Your task to perform on an android device: set default search engine in the chrome app Image 0: 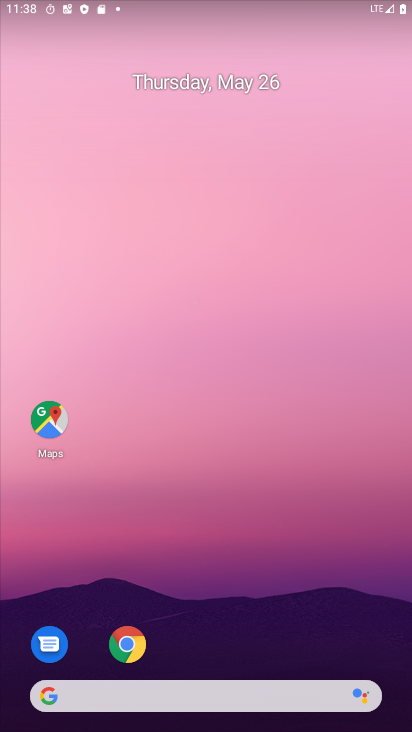
Step 0: click (132, 647)
Your task to perform on an android device: set default search engine in the chrome app Image 1: 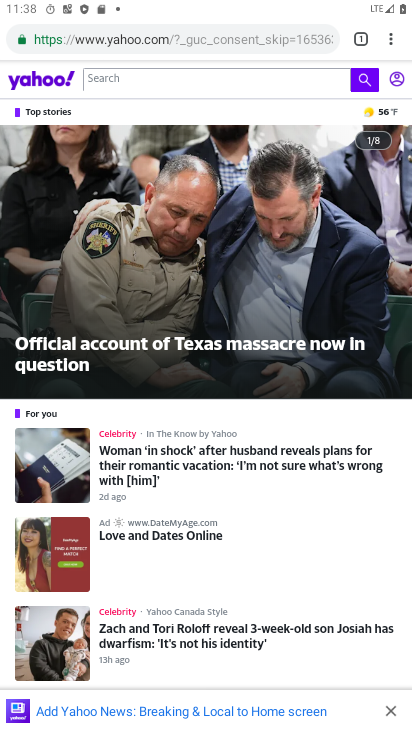
Step 1: click (389, 38)
Your task to perform on an android device: set default search engine in the chrome app Image 2: 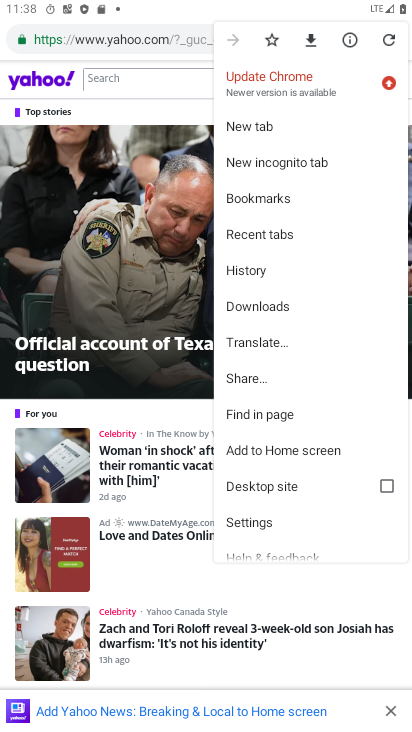
Step 2: click (271, 522)
Your task to perform on an android device: set default search engine in the chrome app Image 3: 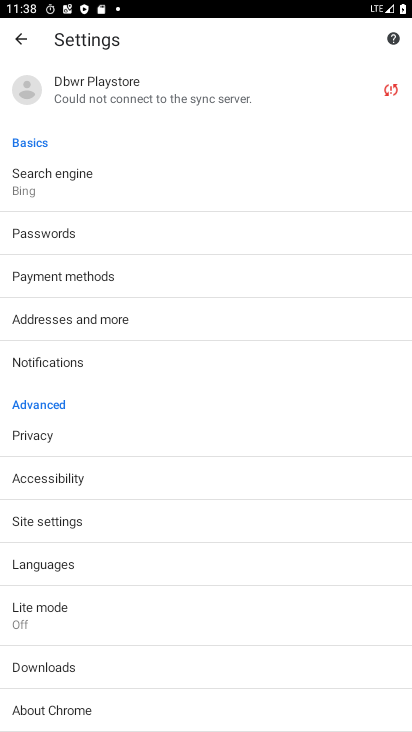
Step 3: click (82, 177)
Your task to perform on an android device: set default search engine in the chrome app Image 4: 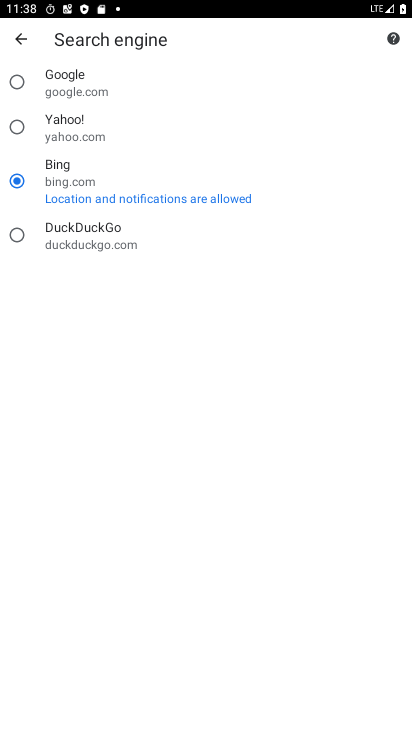
Step 4: click (35, 79)
Your task to perform on an android device: set default search engine in the chrome app Image 5: 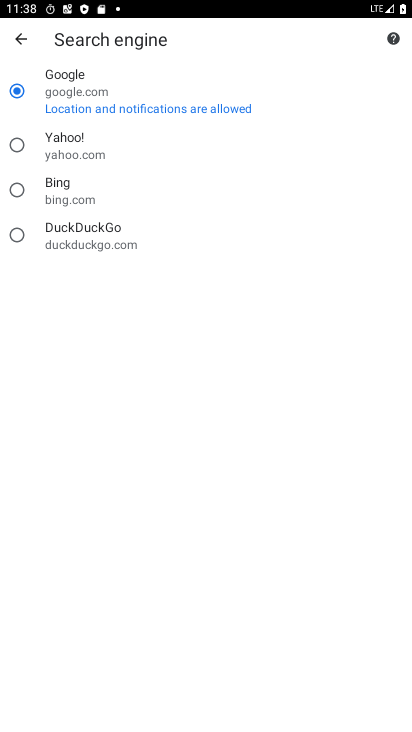
Step 5: task complete